Your task to perform on an android device: toggle notifications settings in the gmail app Image 0: 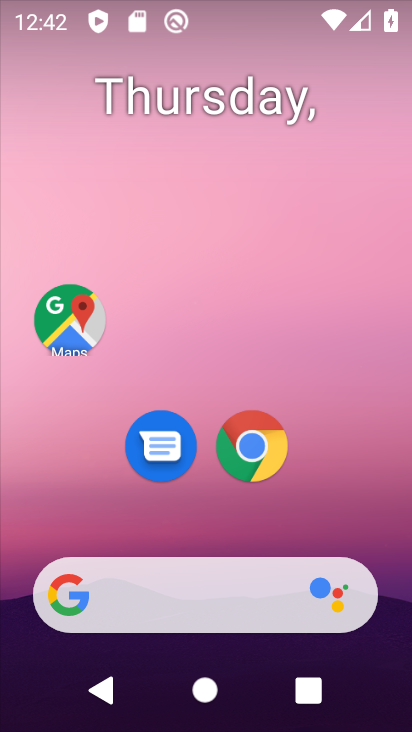
Step 0: drag from (394, 532) to (264, 5)
Your task to perform on an android device: toggle notifications settings in the gmail app Image 1: 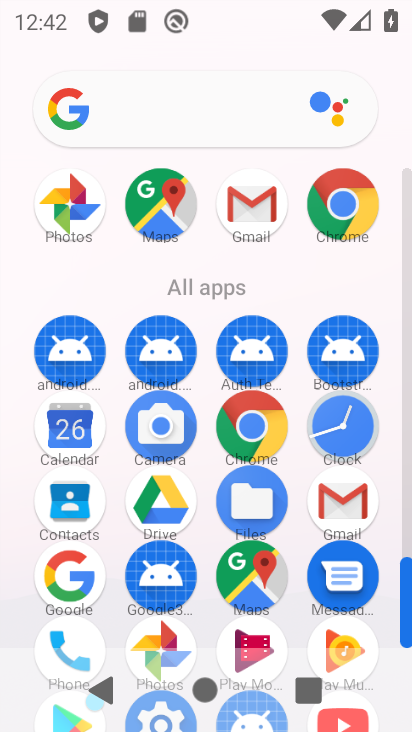
Step 1: drag from (23, 608) to (20, 362)
Your task to perform on an android device: toggle notifications settings in the gmail app Image 2: 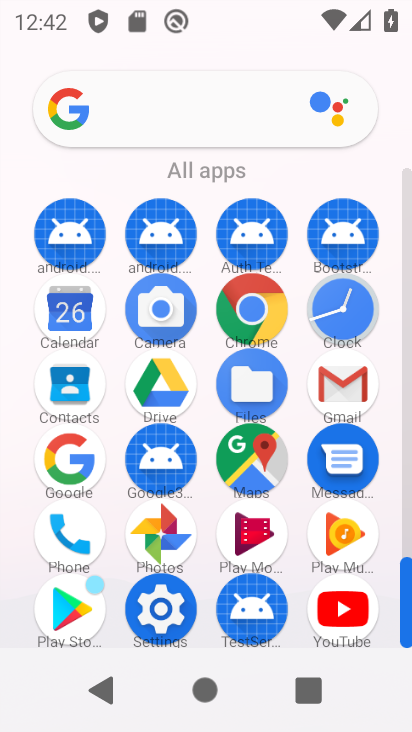
Step 2: click (339, 379)
Your task to perform on an android device: toggle notifications settings in the gmail app Image 3: 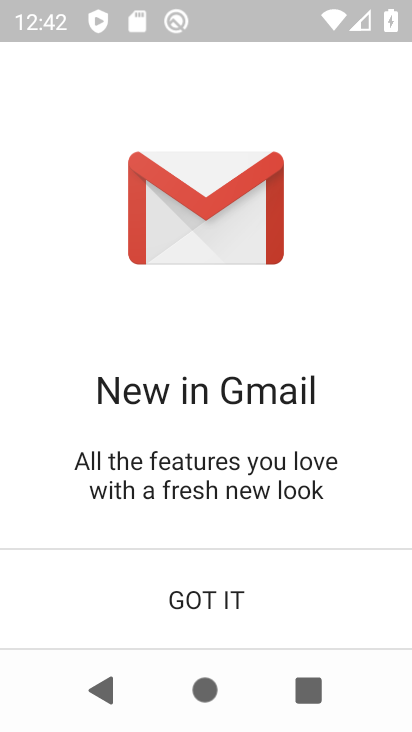
Step 3: click (159, 604)
Your task to perform on an android device: toggle notifications settings in the gmail app Image 4: 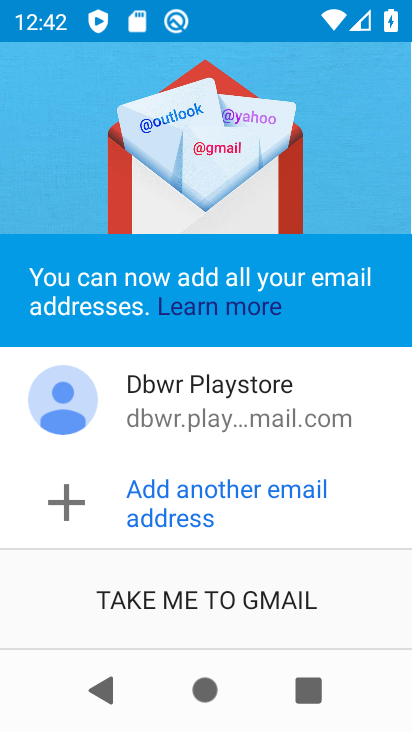
Step 4: click (160, 600)
Your task to perform on an android device: toggle notifications settings in the gmail app Image 5: 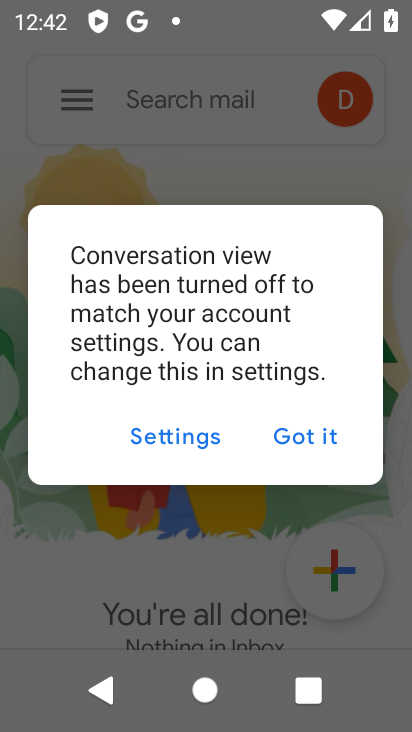
Step 5: click (301, 419)
Your task to perform on an android device: toggle notifications settings in the gmail app Image 6: 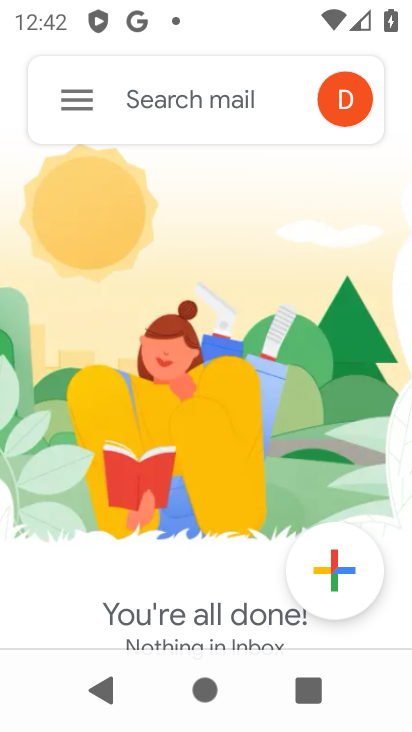
Step 6: click (73, 88)
Your task to perform on an android device: toggle notifications settings in the gmail app Image 7: 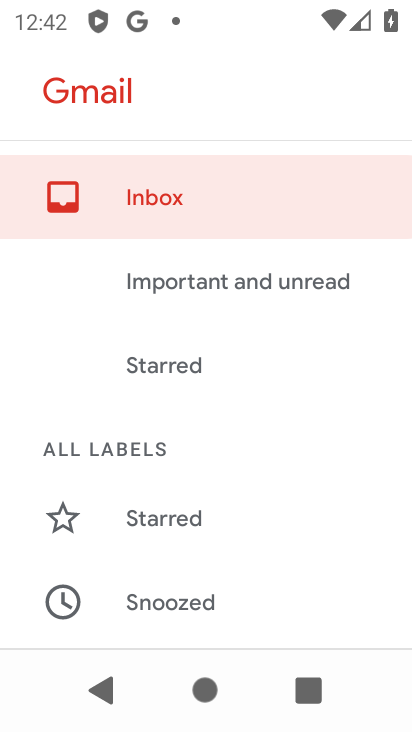
Step 7: drag from (229, 596) to (246, 171)
Your task to perform on an android device: toggle notifications settings in the gmail app Image 8: 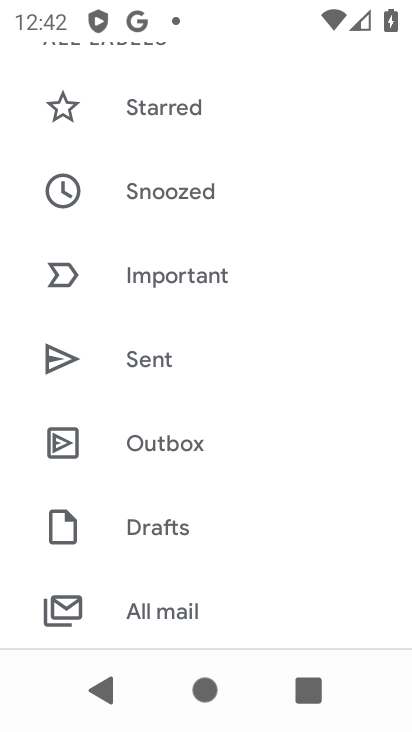
Step 8: drag from (247, 549) to (233, 127)
Your task to perform on an android device: toggle notifications settings in the gmail app Image 9: 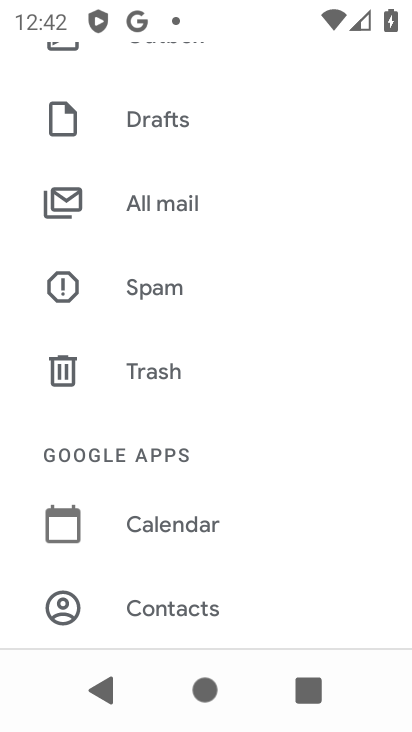
Step 9: drag from (244, 544) to (256, 123)
Your task to perform on an android device: toggle notifications settings in the gmail app Image 10: 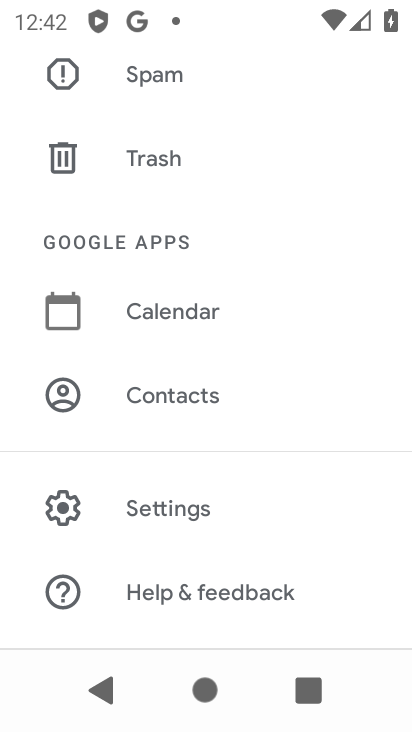
Step 10: drag from (186, 502) to (223, 109)
Your task to perform on an android device: toggle notifications settings in the gmail app Image 11: 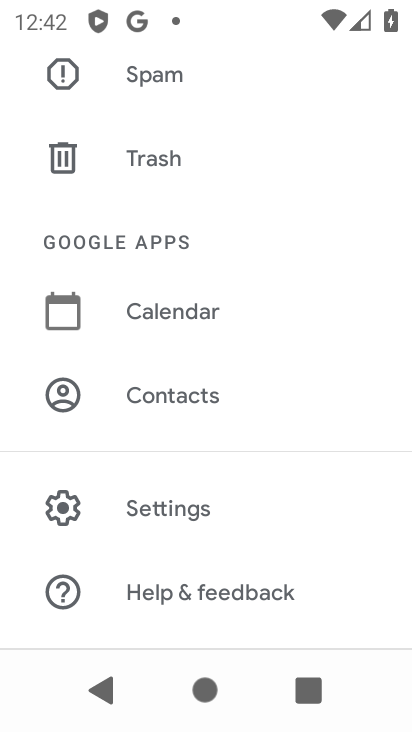
Step 11: drag from (208, 612) to (231, 192)
Your task to perform on an android device: toggle notifications settings in the gmail app Image 12: 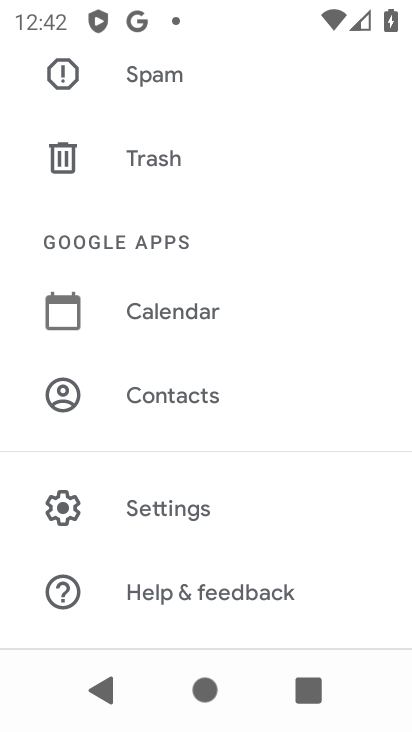
Step 12: click (168, 510)
Your task to perform on an android device: toggle notifications settings in the gmail app Image 13: 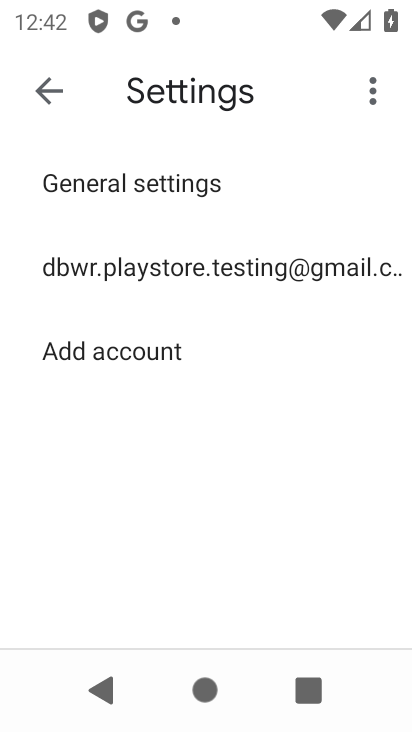
Step 13: click (213, 252)
Your task to perform on an android device: toggle notifications settings in the gmail app Image 14: 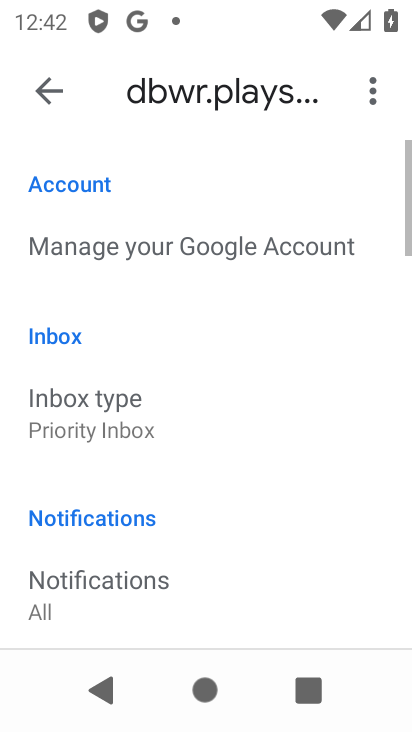
Step 14: drag from (306, 593) to (293, 155)
Your task to perform on an android device: toggle notifications settings in the gmail app Image 15: 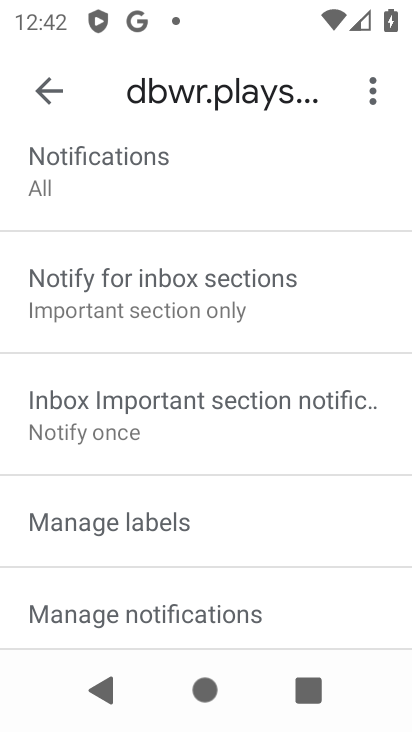
Step 15: drag from (257, 605) to (262, 156)
Your task to perform on an android device: toggle notifications settings in the gmail app Image 16: 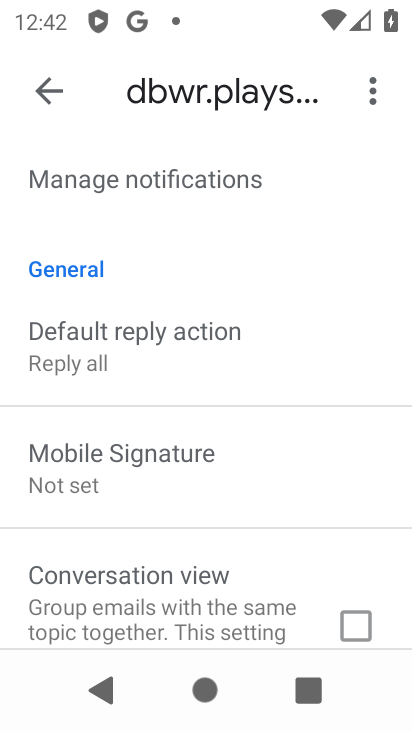
Step 16: click (158, 182)
Your task to perform on an android device: toggle notifications settings in the gmail app Image 17: 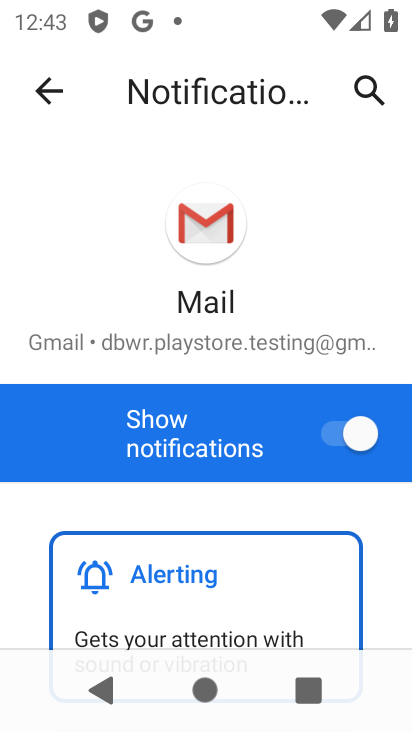
Step 17: click (336, 425)
Your task to perform on an android device: toggle notifications settings in the gmail app Image 18: 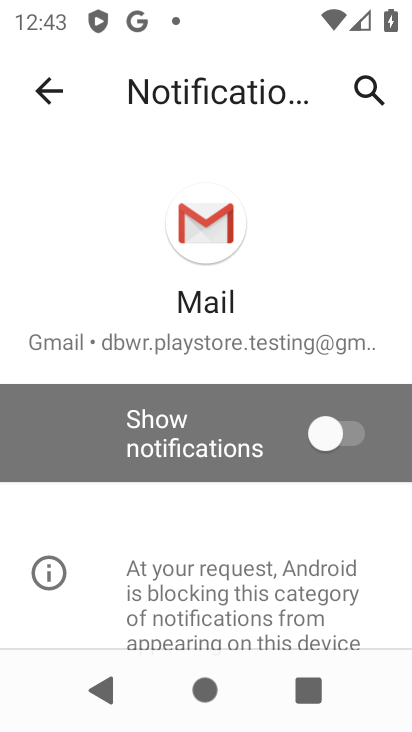
Step 18: task complete